Your task to perform on an android device: find which apps use the phone's location Image 0: 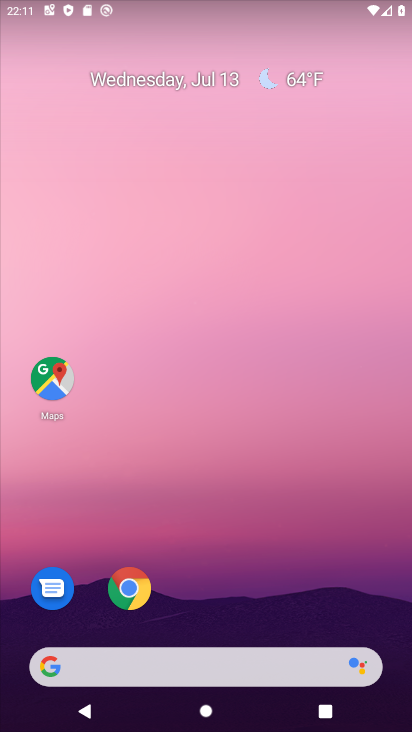
Step 0: drag from (210, 554) to (236, 72)
Your task to perform on an android device: find which apps use the phone's location Image 1: 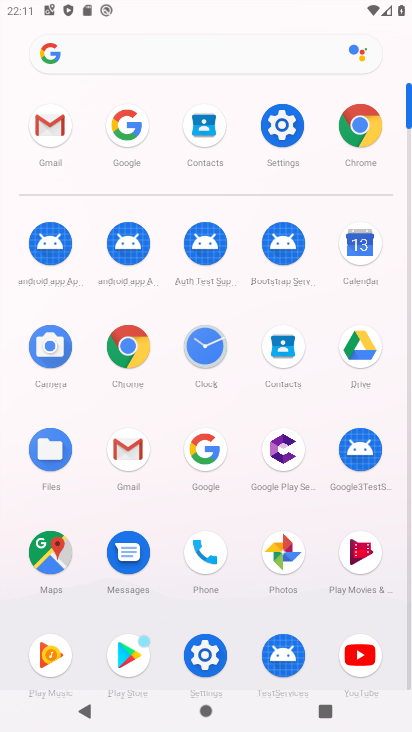
Step 1: click (207, 551)
Your task to perform on an android device: find which apps use the phone's location Image 2: 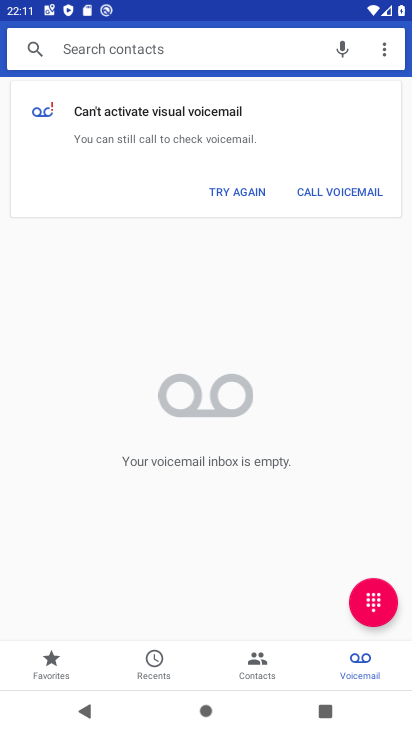
Step 2: press back button
Your task to perform on an android device: find which apps use the phone's location Image 3: 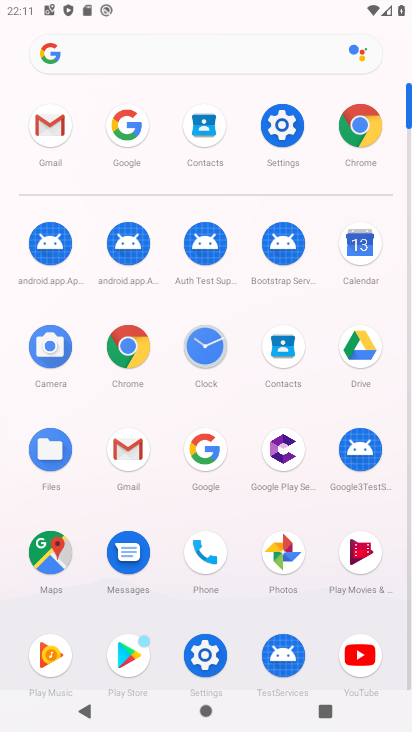
Step 3: click (283, 130)
Your task to perform on an android device: find which apps use the phone's location Image 4: 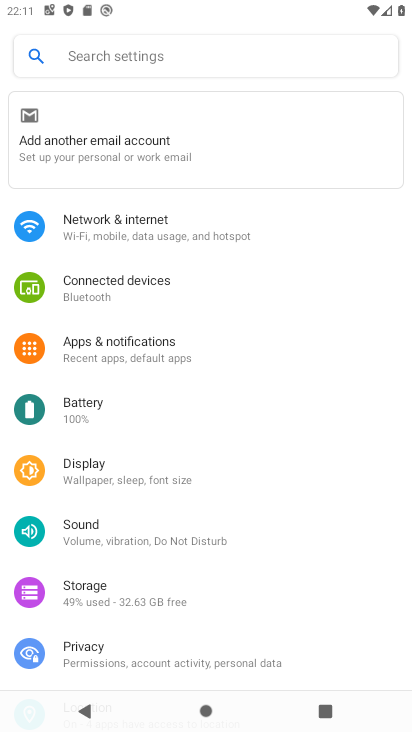
Step 4: drag from (107, 637) to (194, 158)
Your task to perform on an android device: find which apps use the phone's location Image 5: 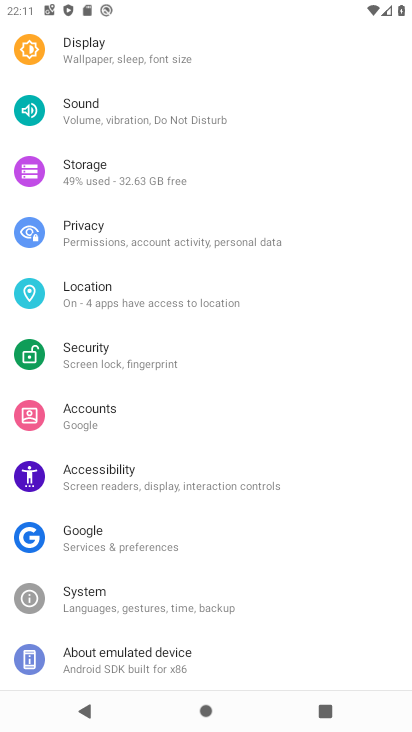
Step 5: click (111, 292)
Your task to perform on an android device: find which apps use the phone's location Image 6: 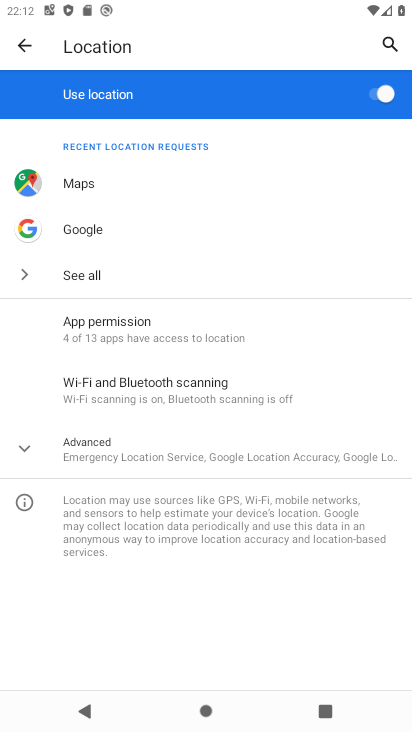
Step 6: task complete